Your task to perform on an android device: turn off improve location accuracy Image 0: 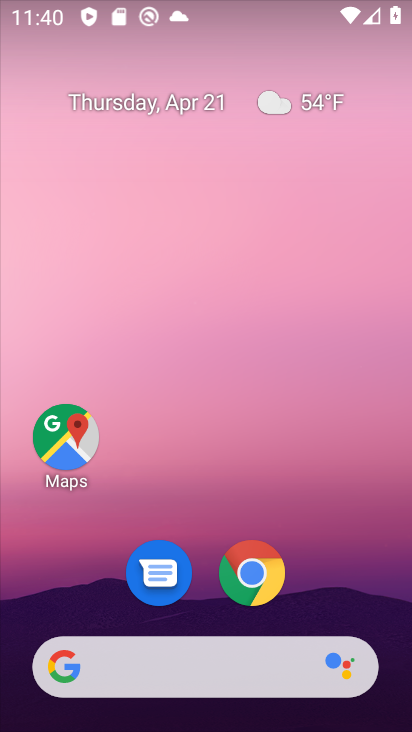
Step 0: drag from (398, 612) to (370, 150)
Your task to perform on an android device: turn off improve location accuracy Image 1: 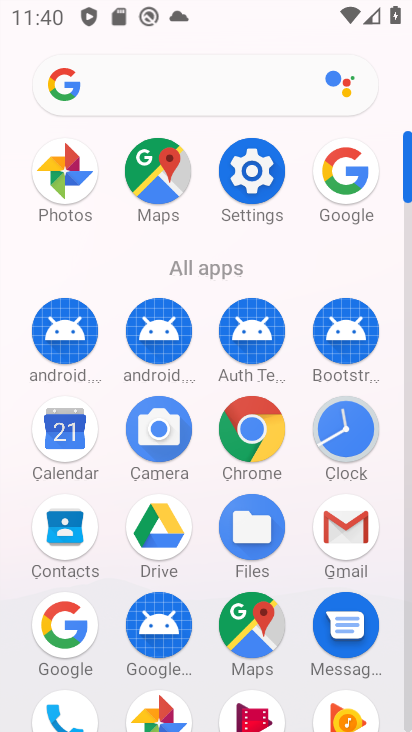
Step 1: click (265, 176)
Your task to perform on an android device: turn off improve location accuracy Image 2: 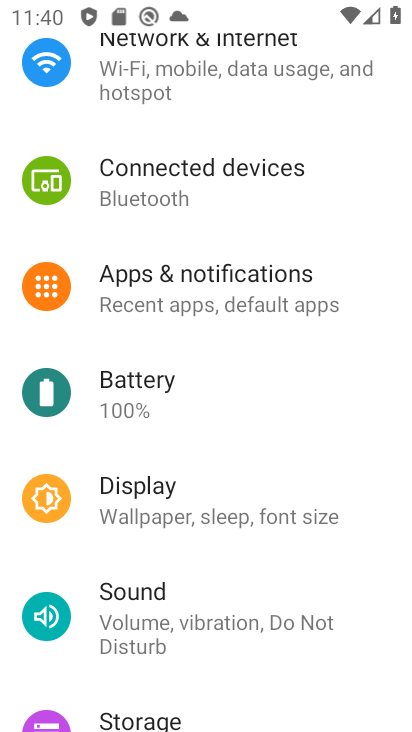
Step 2: drag from (288, 509) to (302, 265)
Your task to perform on an android device: turn off improve location accuracy Image 3: 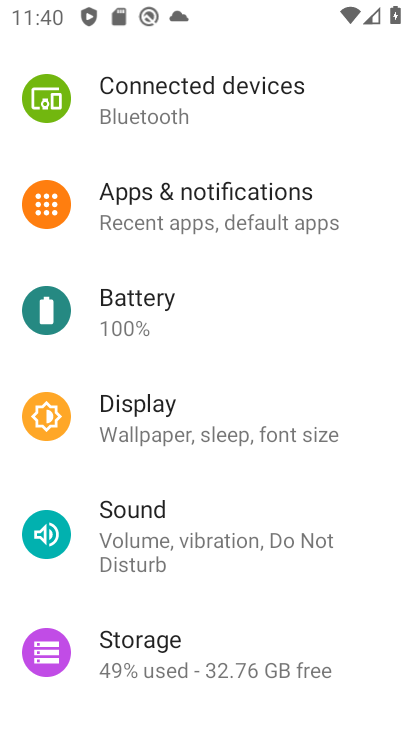
Step 3: drag from (284, 583) to (312, 294)
Your task to perform on an android device: turn off improve location accuracy Image 4: 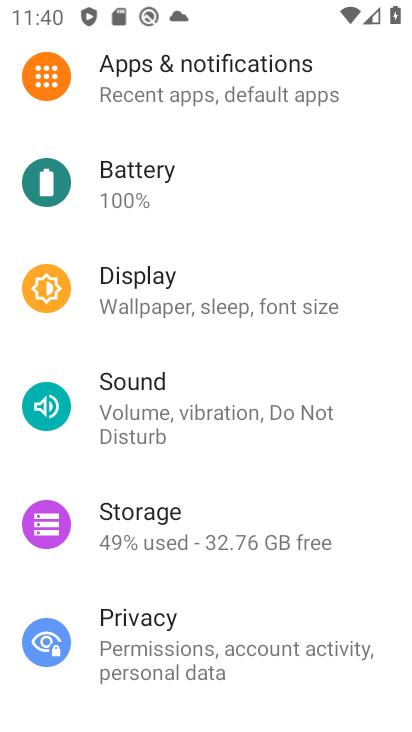
Step 4: drag from (265, 625) to (301, 260)
Your task to perform on an android device: turn off improve location accuracy Image 5: 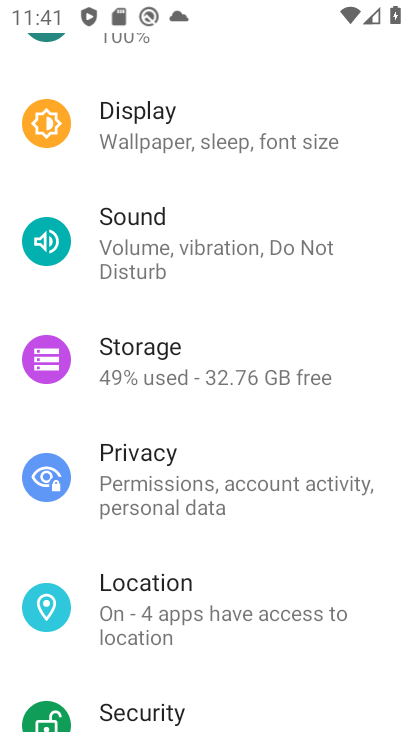
Step 5: click (186, 618)
Your task to perform on an android device: turn off improve location accuracy Image 6: 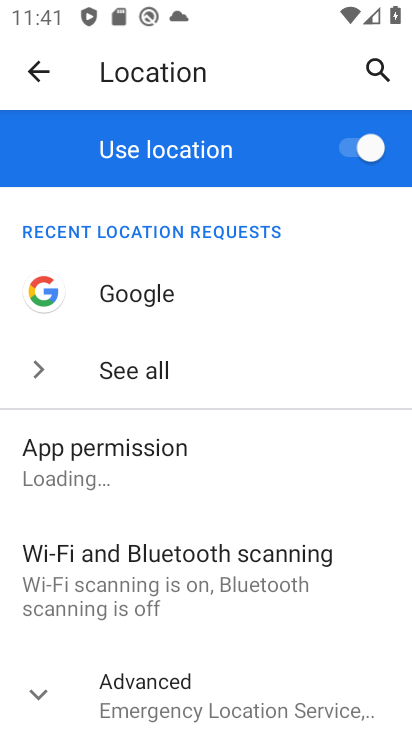
Step 6: drag from (319, 626) to (294, 254)
Your task to perform on an android device: turn off improve location accuracy Image 7: 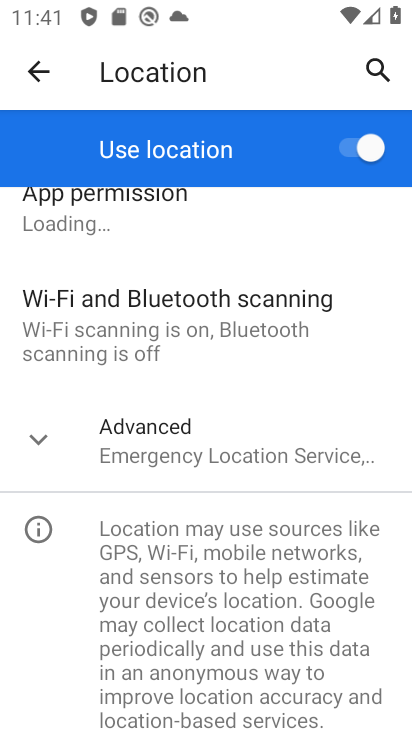
Step 7: click (142, 455)
Your task to perform on an android device: turn off improve location accuracy Image 8: 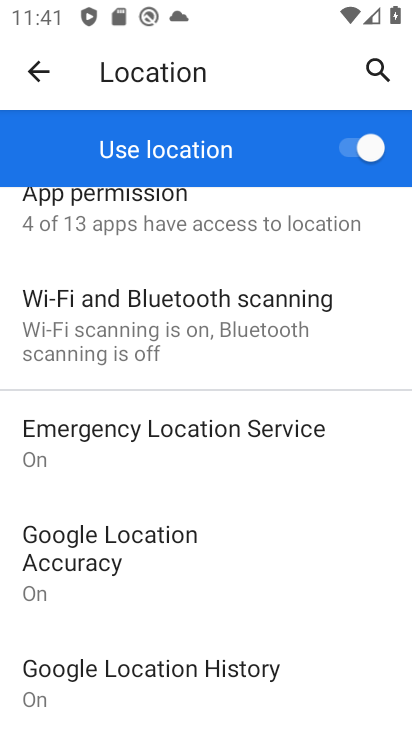
Step 8: click (98, 565)
Your task to perform on an android device: turn off improve location accuracy Image 9: 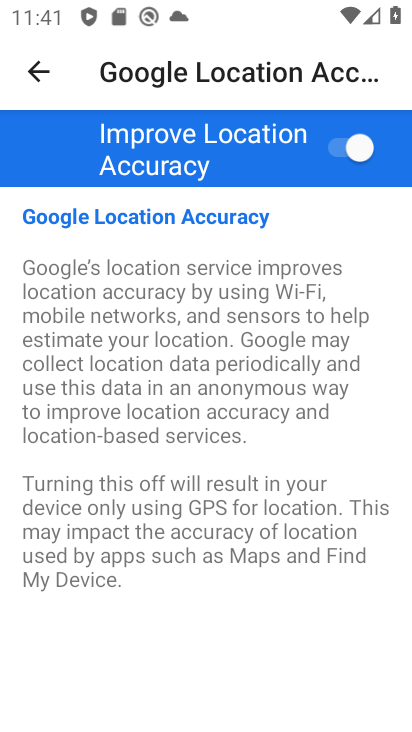
Step 9: click (333, 146)
Your task to perform on an android device: turn off improve location accuracy Image 10: 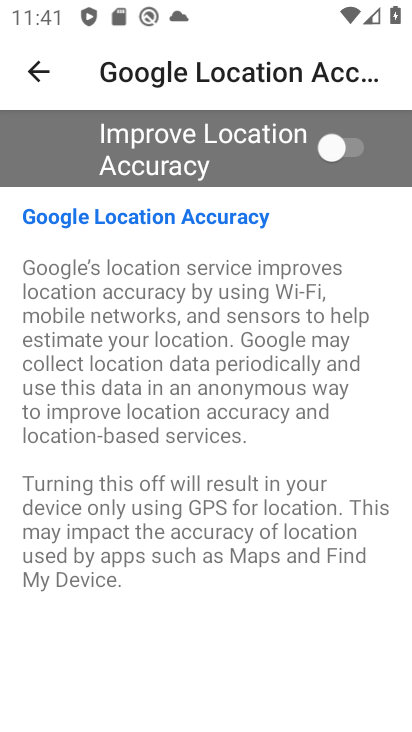
Step 10: task complete